Your task to perform on an android device: delete the emails in spam in the gmail app Image 0: 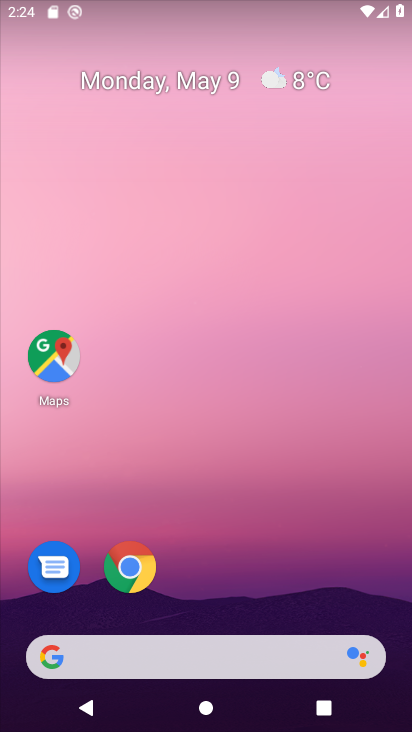
Step 0: drag from (264, 554) to (175, 1)
Your task to perform on an android device: delete the emails in spam in the gmail app Image 1: 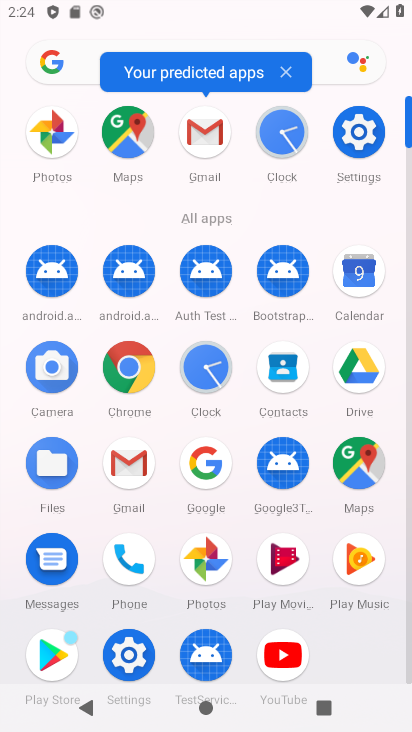
Step 1: click (205, 124)
Your task to perform on an android device: delete the emails in spam in the gmail app Image 2: 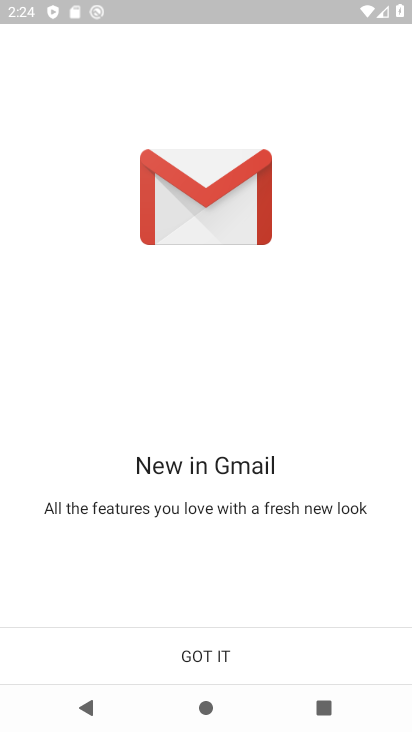
Step 2: click (199, 631)
Your task to perform on an android device: delete the emails in spam in the gmail app Image 3: 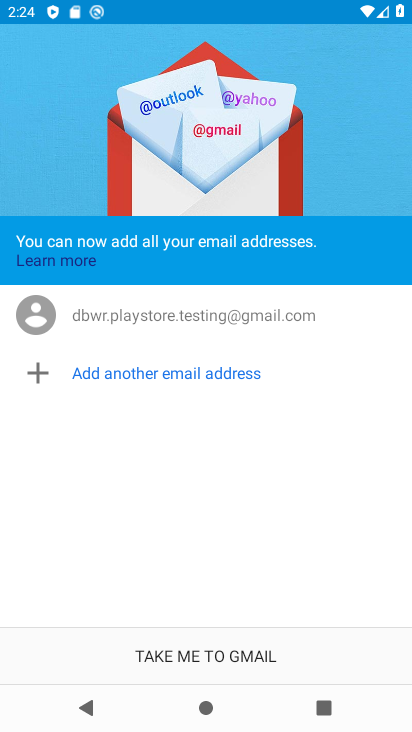
Step 3: click (171, 659)
Your task to perform on an android device: delete the emails in spam in the gmail app Image 4: 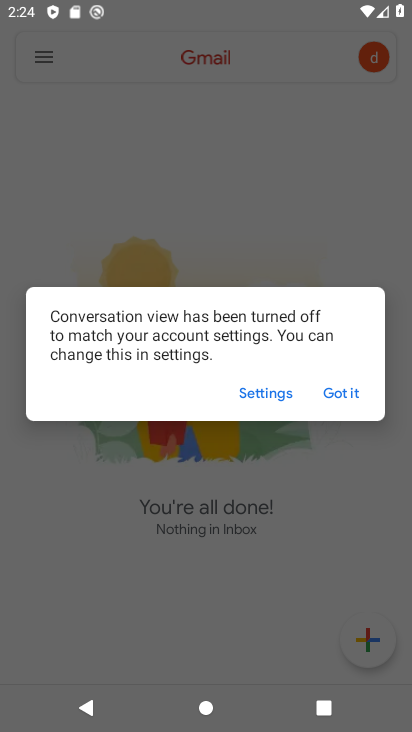
Step 4: click (329, 388)
Your task to perform on an android device: delete the emails in spam in the gmail app Image 5: 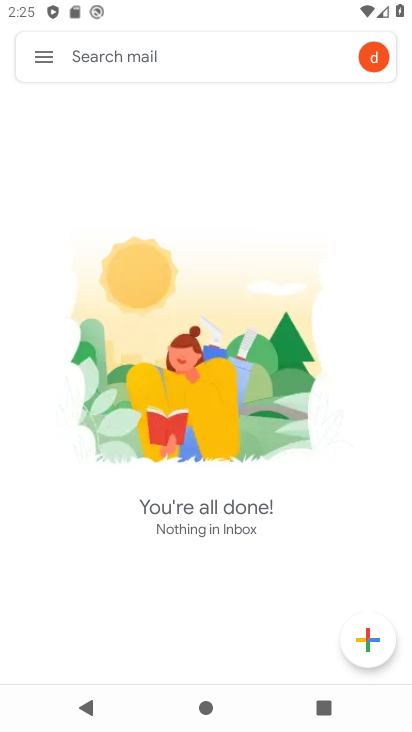
Step 5: click (36, 55)
Your task to perform on an android device: delete the emails in spam in the gmail app Image 6: 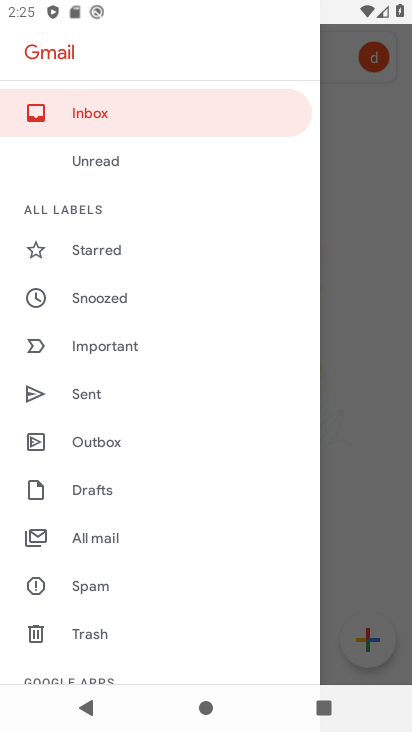
Step 6: drag from (155, 538) to (201, 102)
Your task to perform on an android device: delete the emails in spam in the gmail app Image 7: 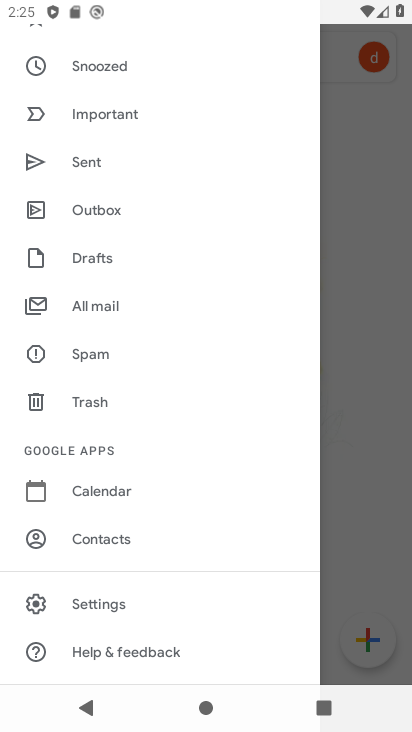
Step 7: click (111, 600)
Your task to perform on an android device: delete the emails in spam in the gmail app Image 8: 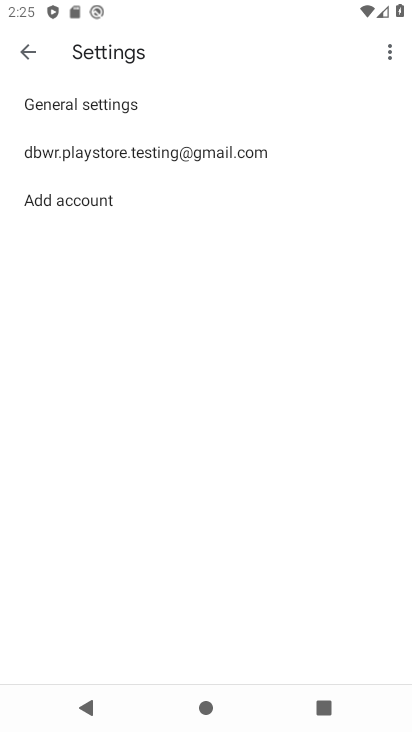
Step 8: click (136, 147)
Your task to perform on an android device: delete the emails in spam in the gmail app Image 9: 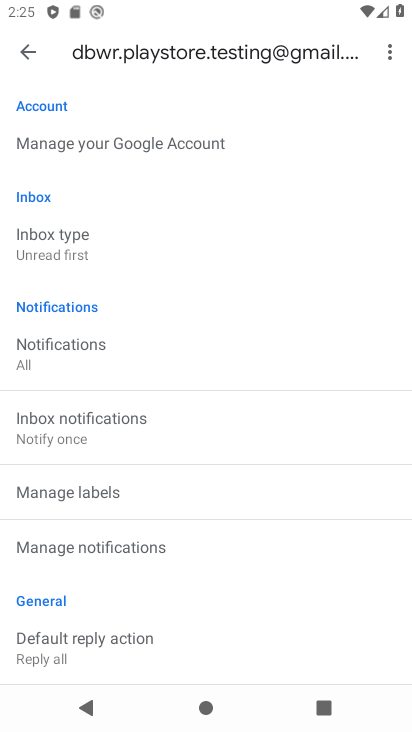
Step 9: drag from (225, 516) to (261, 141)
Your task to perform on an android device: delete the emails in spam in the gmail app Image 10: 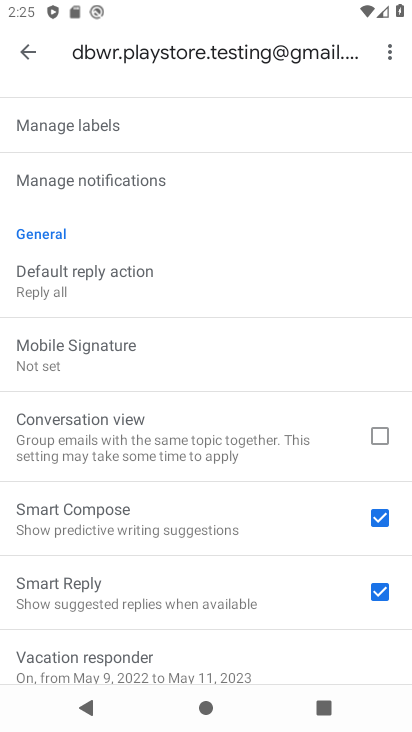
Step 10: click (26, 56)
Your task to perform on an android device: delete the emails in spam in the gmail app Image 11: 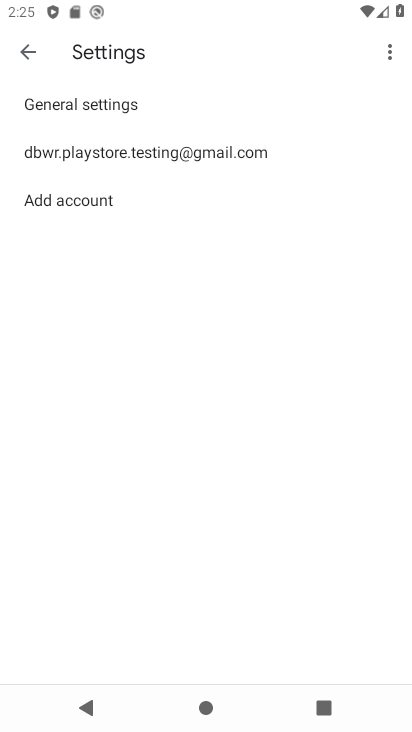
Step 11: click (26, 56)
Your task to perform on an android device: delete the emails in spam in the gmail app Image 12: 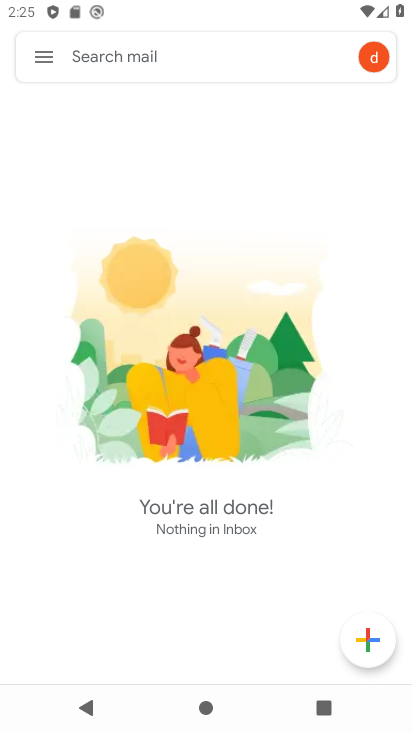
Step 12: click (32, 61)
Your task to perform on an android device: delete the emails in spam in the gmail app Image 13: 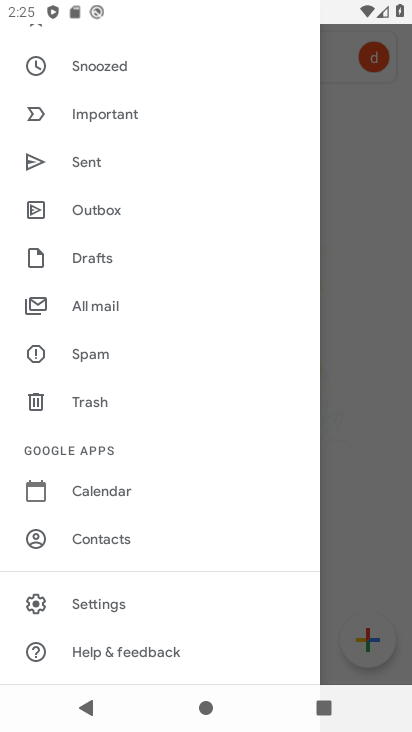
Step 13: click (118, 363)
Your task to perform on an android device: delete the emails in spam in the gmail app Image 14: 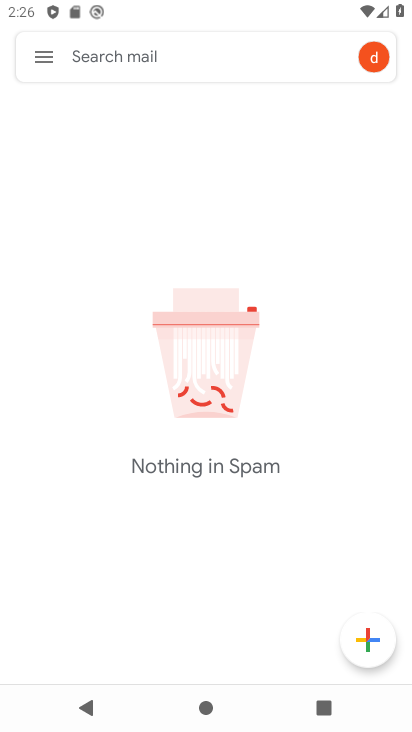
Step 14: task complete